Your task to perform on an android device: toggle priority inbox in the gmail app Image 0: 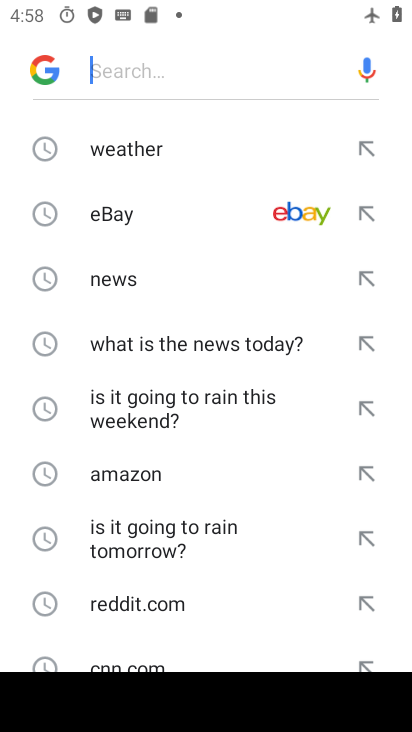
Step 0: press home button
Your task to perform on an android device: toggle priority inbox in the gmail app Image 1: 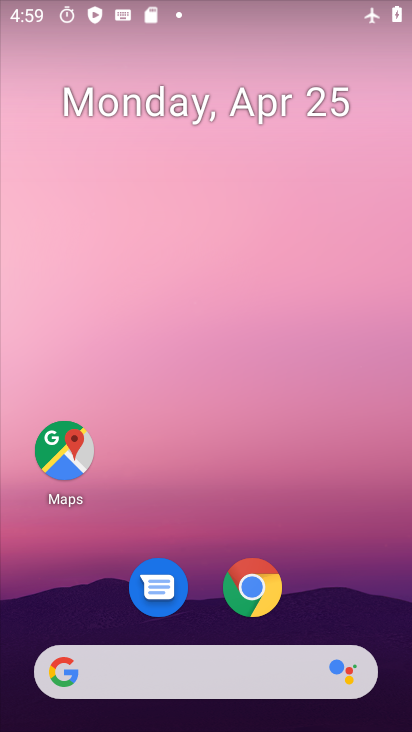
Step 1: drag from (318, 358) to (318, 104)
Your task to perform on an android device: toggle priority inbox in the gmail app Image 2: 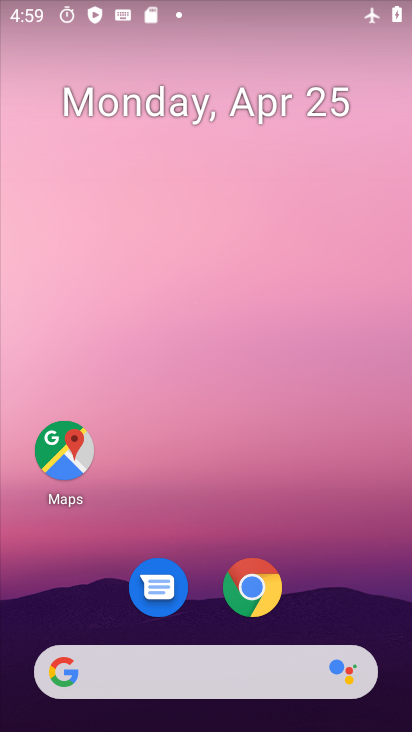
Step 2: drag from (374, 519) to (168, 3)
Your task to perform on an android device: toggle priority inbox in the gmail app Image 3: 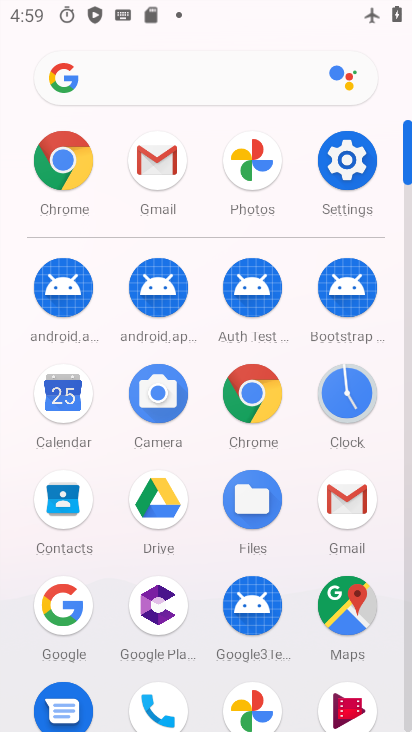
Step 3: click (353, 508)
Your task to perform on an android device: toggle priority inbox in the gmail app Image 4: 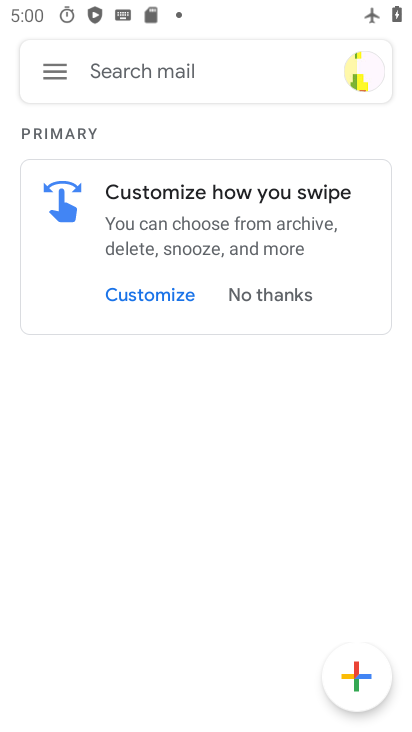
Step 4: click (52, 66)
Your task to perform on an android device: toggle priority inbox in the gmail app Image 5: 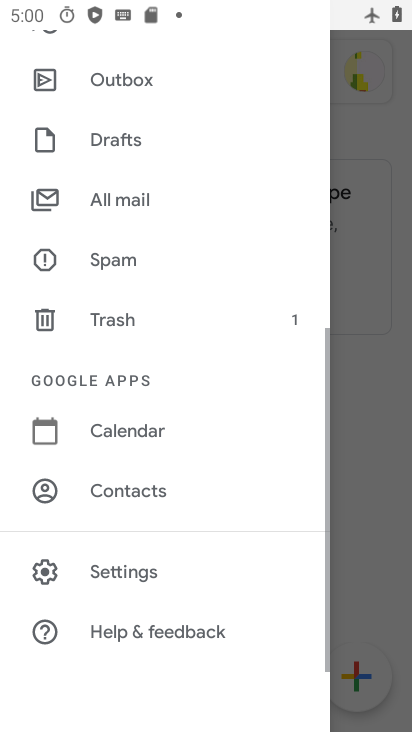
Step 5: drag from (108, 568) to (169, 325)
Your task to perform on an android device: toggle priority inbox in the gmail app Image 6: 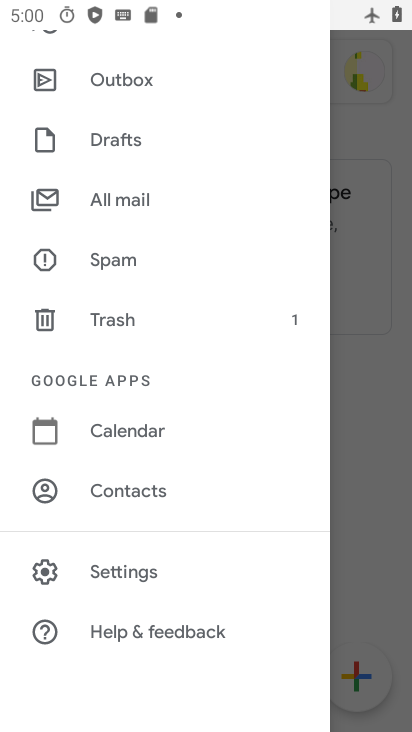
Step 6: click (131, 568)
Your task to perform on an android device: toggle priority inbox in the gmail app Image 7: 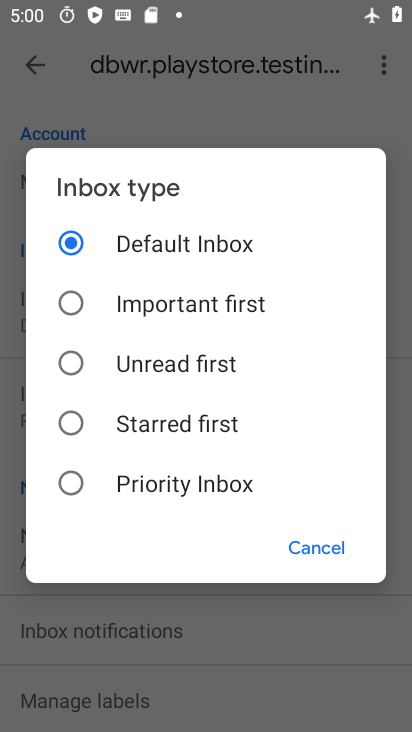
Step 7: click (208, 306)
Your task to perform on an android device: toggle priority inbox in the gmail app Image 8: 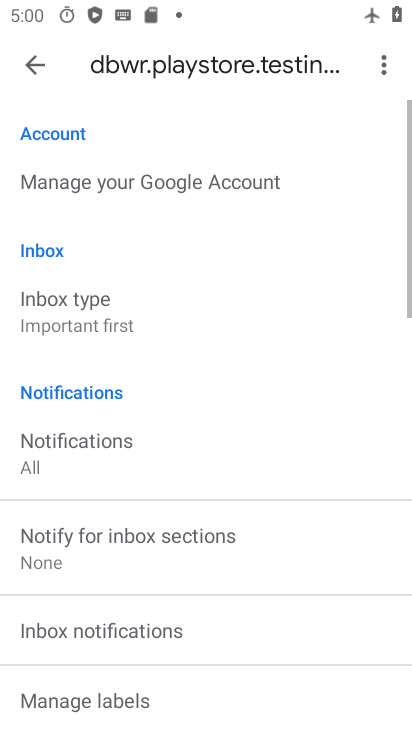
Step 8: task complete